Your task to perform on an android device: open wifi settings Image 0: 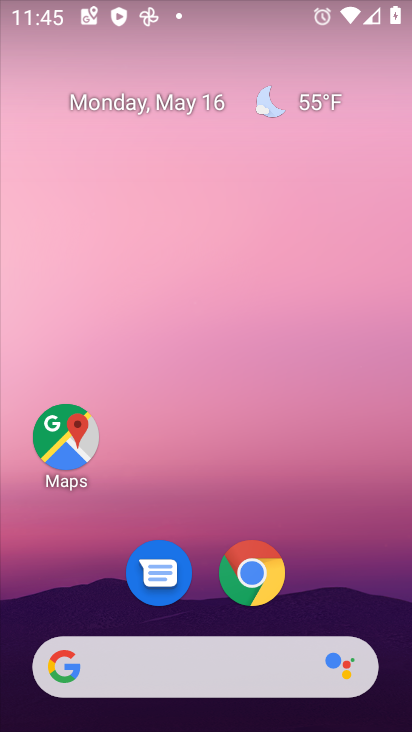
Step 0: drag from (295, 13) to (317, 633)
Your task to perform on an android device: open wifi settings Image 1: 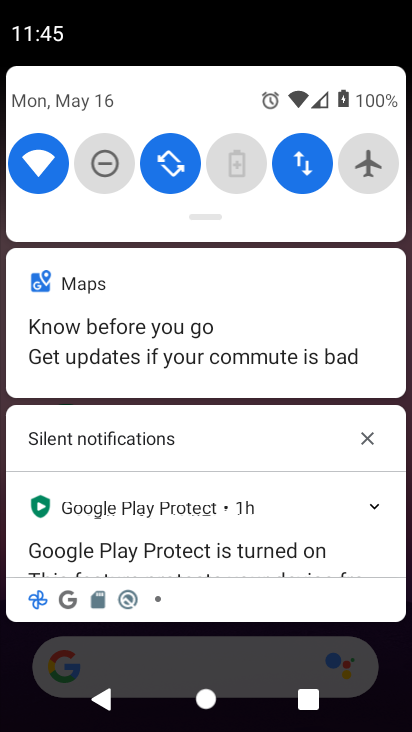
Step 1: click (44, 166)
Your task to perform on an android device: open wifi settings Image 2: 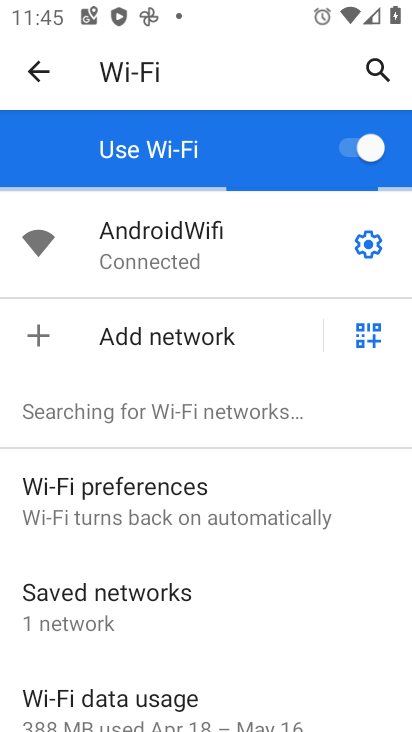
Step 2: task complete